Your task to perform on an android device: turn off smart reply in the gmail app Image 0: 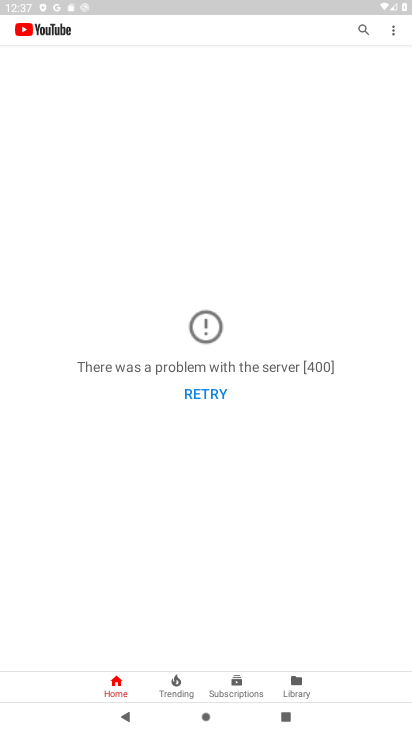
Step 0: press home button
Your task to perform on an android device: turn off smart reply in the gmail app Image 1: 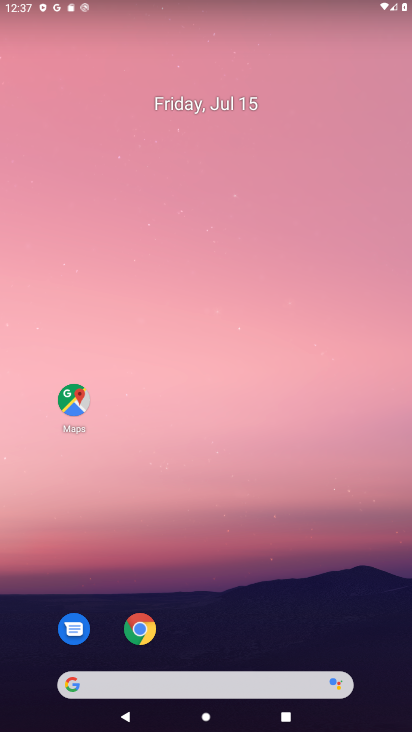
Step 1: drag from (305, 632) to (211, 45)
Your task to perform on an android device: turn off smart reply in the gmail app Image 2: 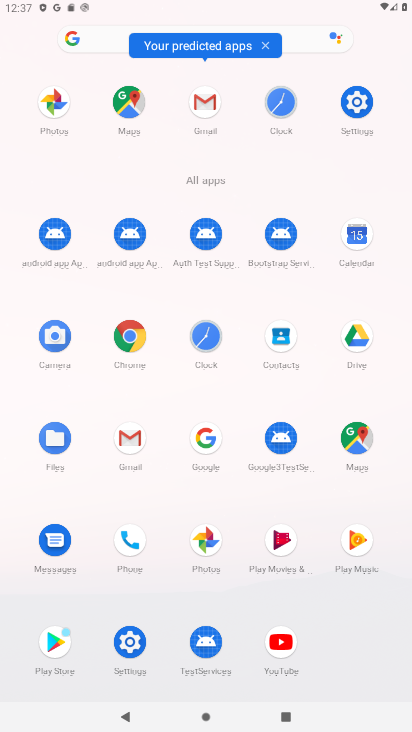
Step 2: click (211, 92)
Your task to perform on an android device: turn off smart reply in the gmail app Image 3: 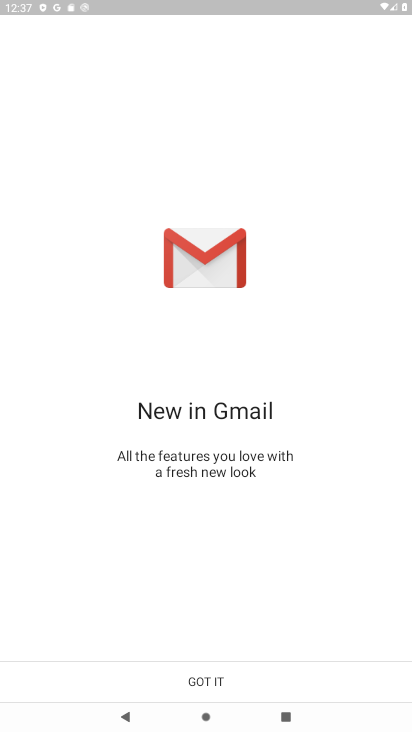
Step 3: click (217, 681)
Your task to perform on an android device: turn off smart reply in the gmail app Image 4: 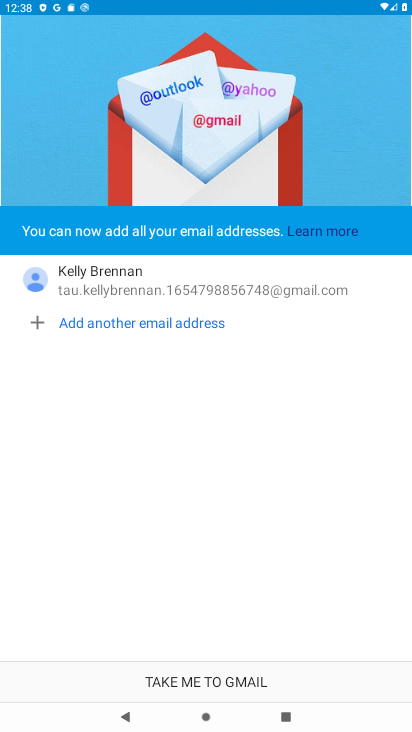
Step 4: click (217, 681)
Your task to perform on an android device: turn off smart reply in the gmail app Image 5: 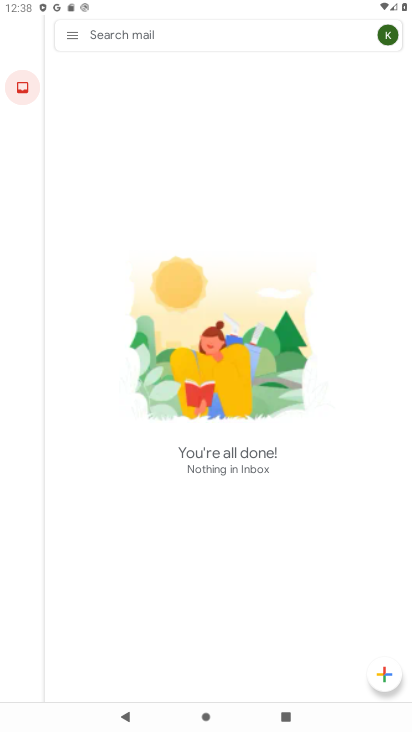
Step 5: click (75, 41)
Your task to perform on an android device: turn off smart reply in the gmail app Image 6: 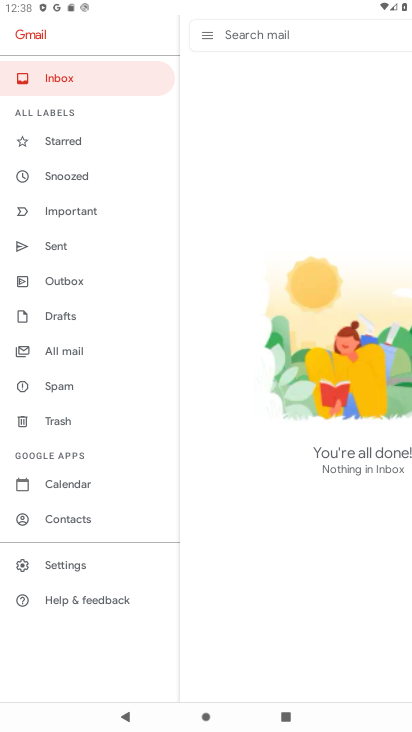
Step 6: click (85, 555)
Your task to perform on an android device: turn off smart reply in the gmail app Image 7: 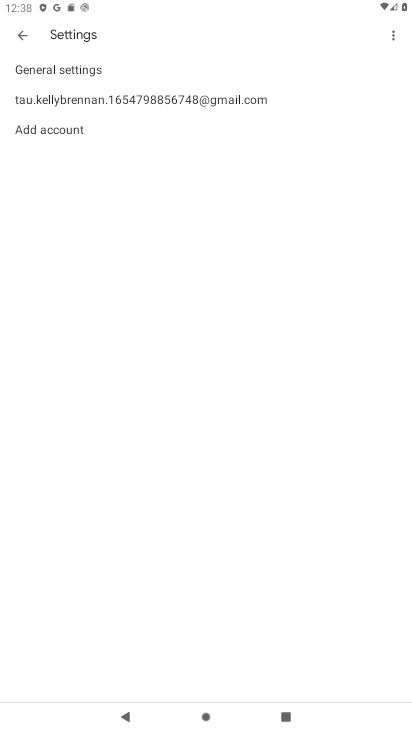
Step 7: click (163, 94)
Your task to perform on an android device: turn off smart reply in the gmail app Image 8: 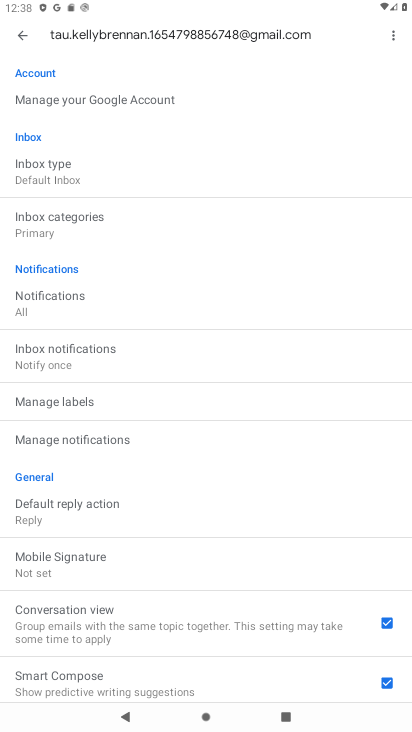
Step 8: drag from (140, 658) to (92, 271)
Your task to perform on an android device: turn off smart reply in the gmail app Image 9: 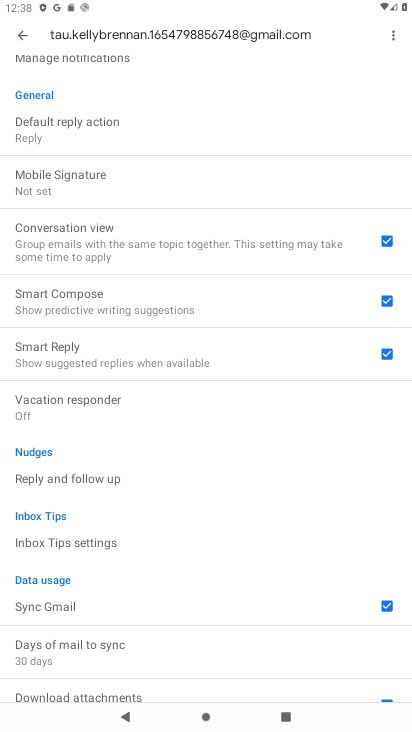
Step 9: click (385, 351)
Your task to perform on an android device: turn off smart reply in the gmail app Image 10: 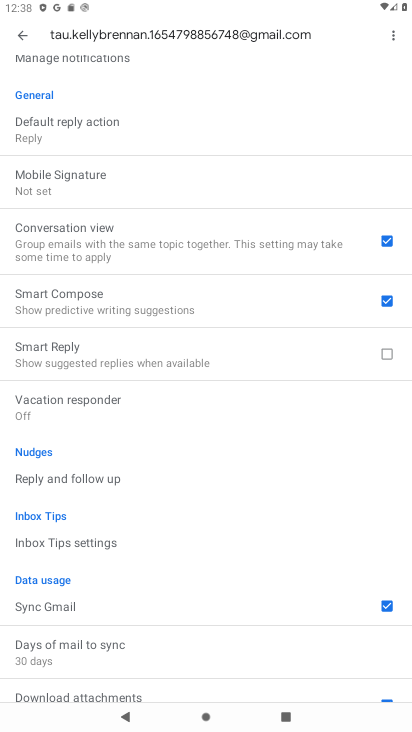
Step 10: task complete